Your task to perform on an android device: See recent photos Image 0: 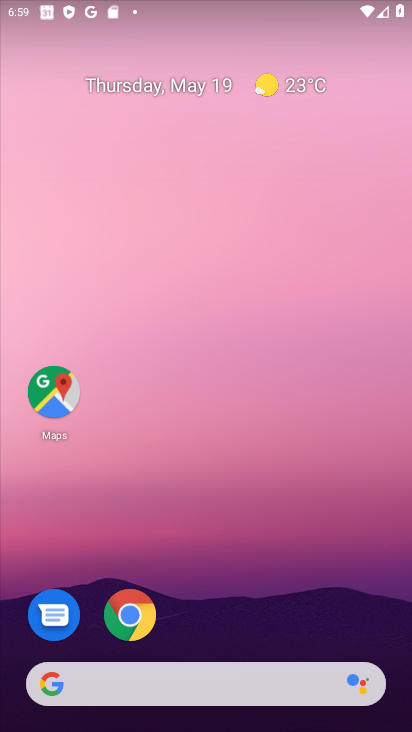
Step 0: drag from (382, 626) to (233, 55)
Your task to perform on an android device: See recent photos Image 1: 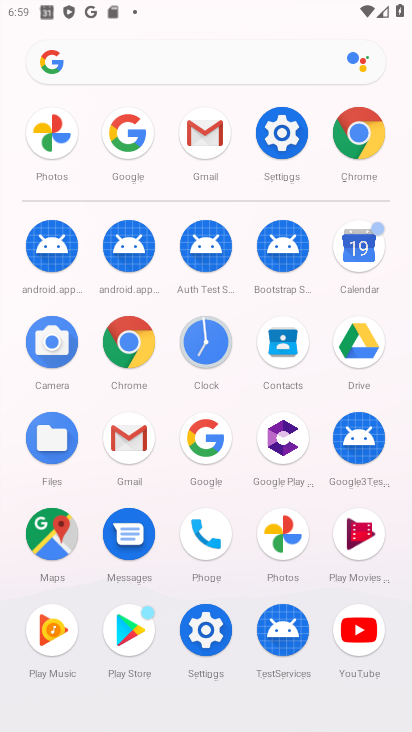
Step 1: click (298, 522)
Your task to perform on an android device: See recent photos Image 2: 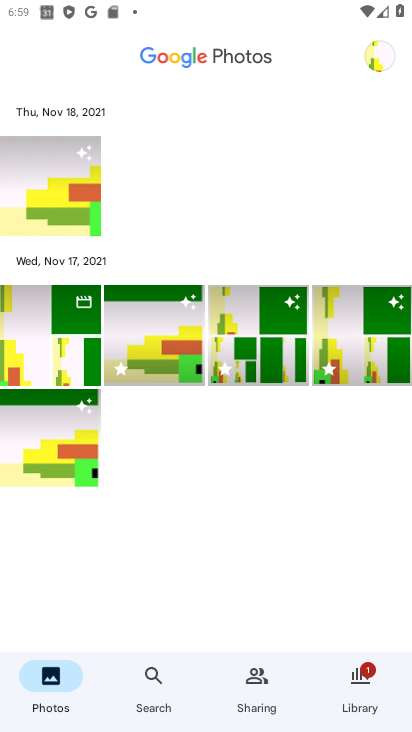
Step 2: click (45, 199)
Your task to perform on an android device: See recent photos Image 3: 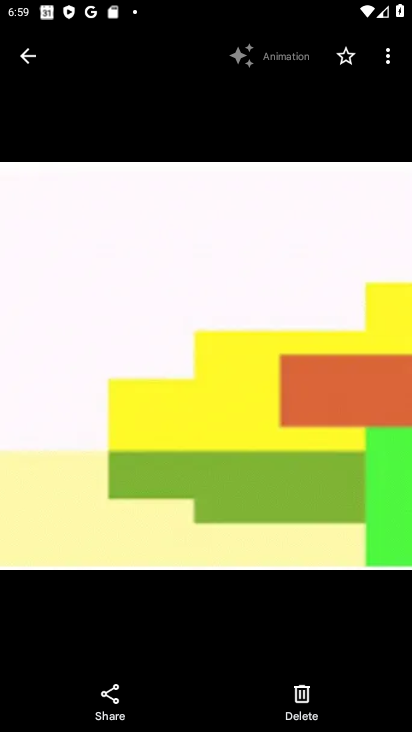
Step 3: task complete